Your task to perform on an android device: check storage Image 0: 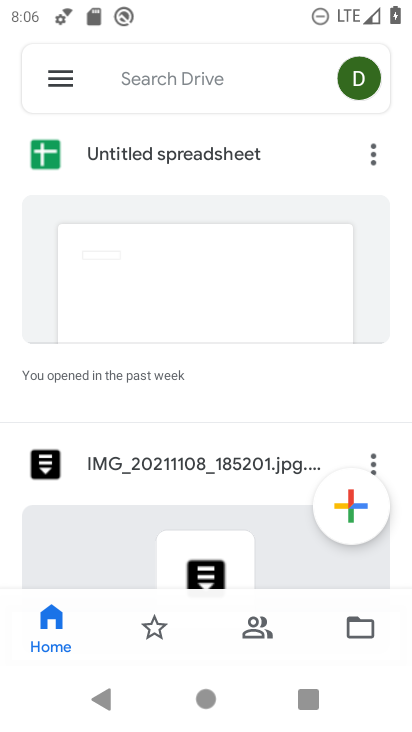
Step 0: press home button
Your task to perform on an android device: check storage Image 1: 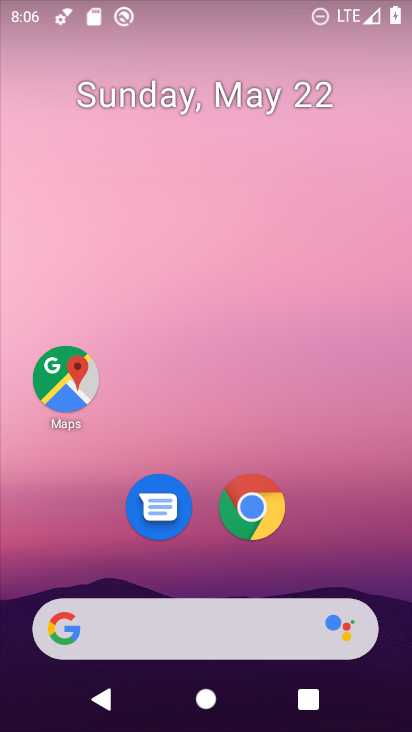
Step 1: drag from (256, 701) to (192, 40)
Your task to perform on an android device: check storage Image 2: 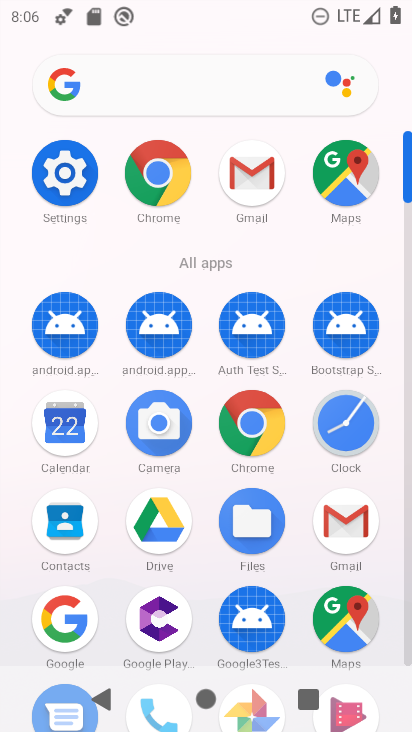
Step 2: click (60, 179)
Your task to perform on an android device: check storage Image 3: 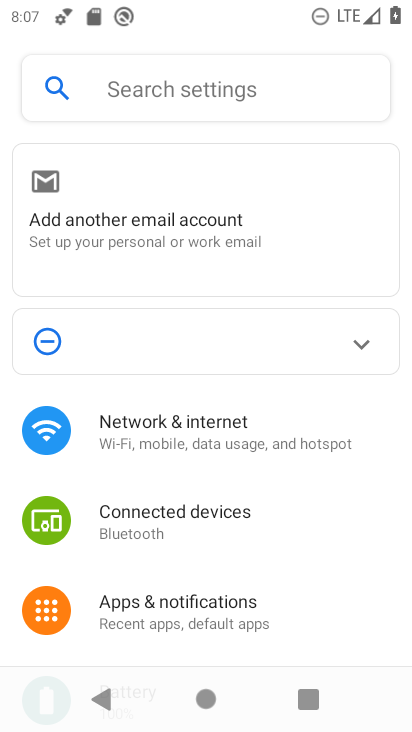
Step 3: drag from (255, 569) to (171, 11)
Your task to perform on an android device: check storage Image 4: 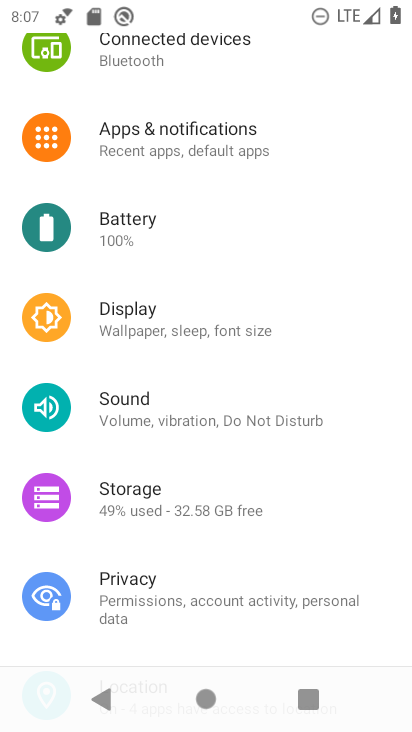
Step 4: click (168, 513)
Your task to perform on an android device: check storage Image 5: 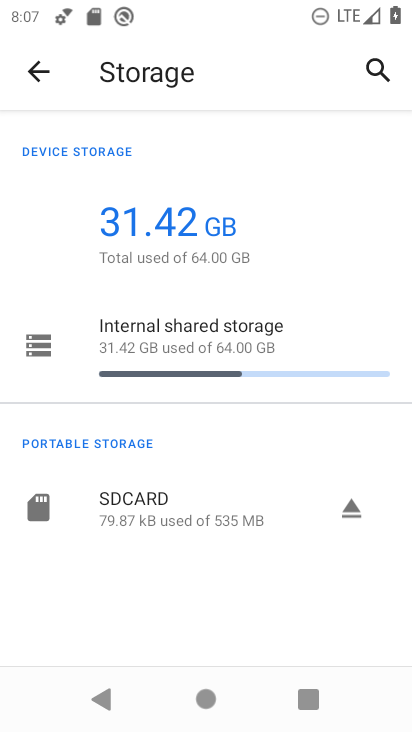
Step 5: task complete